Your task to perform on an android device: change notification settings in the gmail app Image 0: 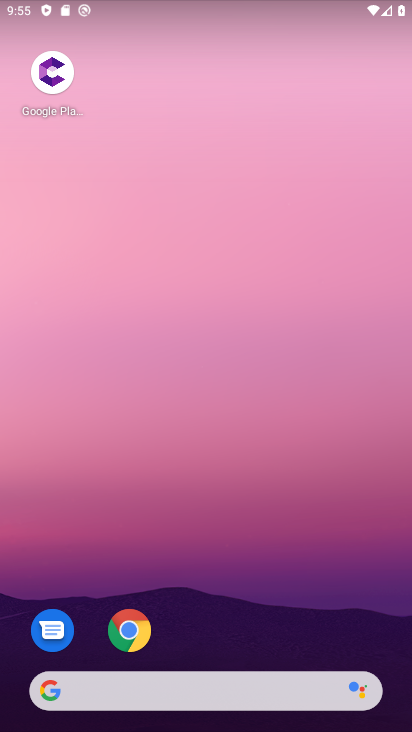
Step 0: drag from (375, 665) to (319, 348)
Your task to perform on an android device: change notification settings in the gmail app Image 1: 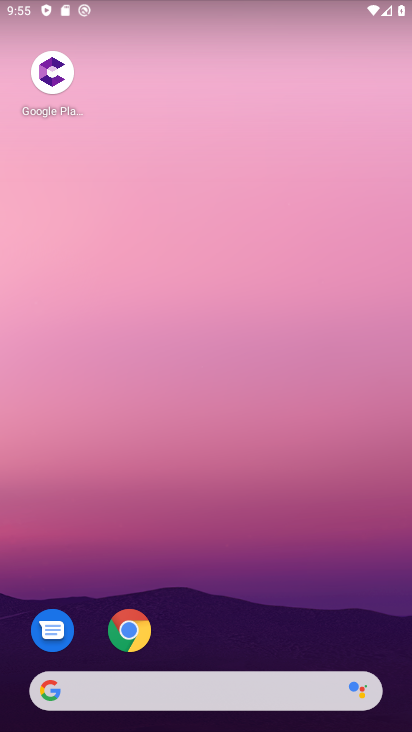
Step 1: drag from (243, 662) to (268, 165)
Your task to perform on an android device: change notification settings in the gmail app Image 2: 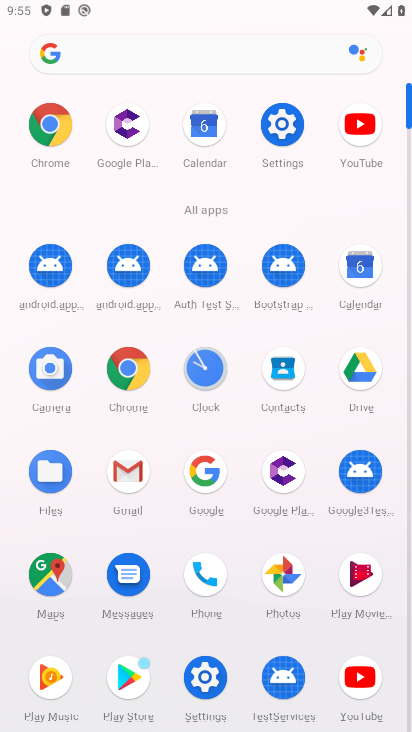
Step 2: click (133, 466)
Your task to perform on an android device: change notification settings in the gmail app Image 3: 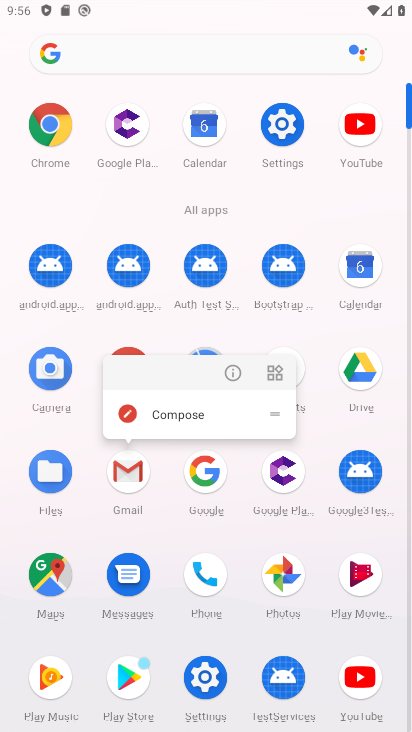
Step 3: click (240, 373)
Your task to perform on an android device: change notification settings in the gmail app Image 4: 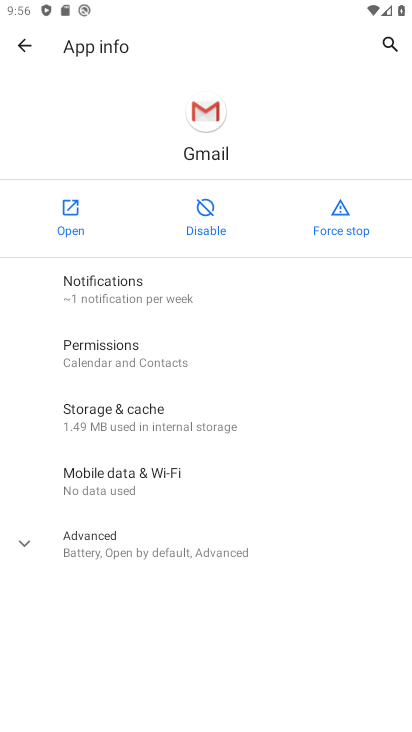
Step 4: click (256, 291)
Your task to perform on an android device: change notification settings in the gmail app Image 5: 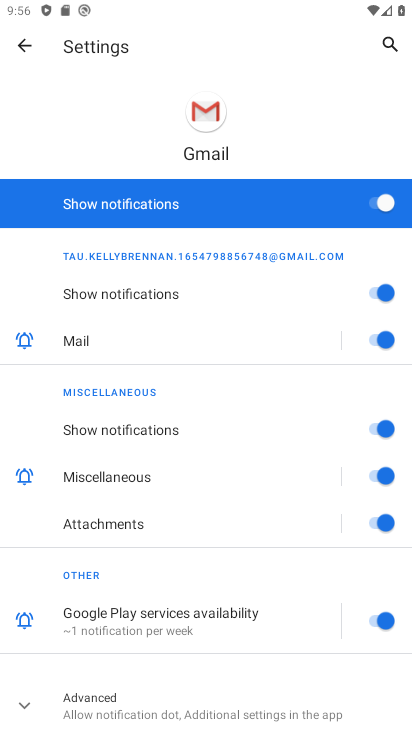
Step 5: click (384, 337)
Your task to perform on an android device: change notification settings in the gmail app Image 6: 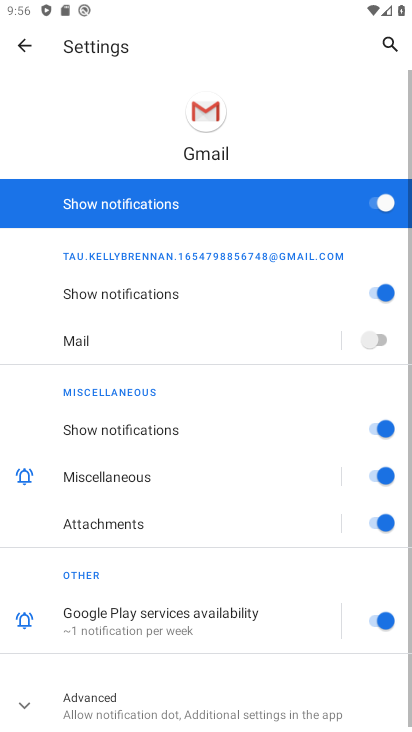
Step 6: click (385, 436)
Your task to perform on an android device: change notification settings in the gmail app Image 7: 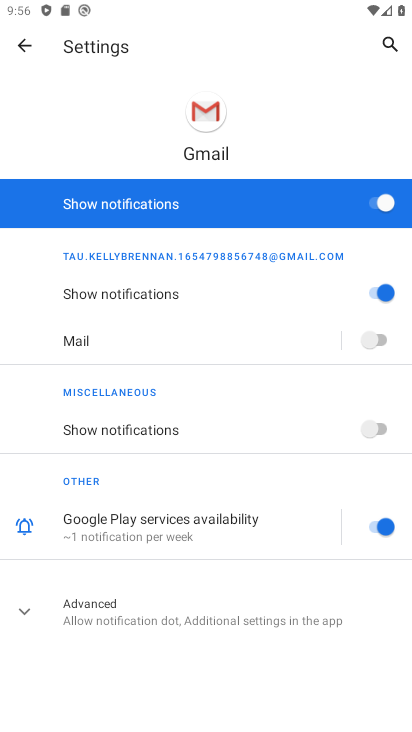
Step 7: task complete